Your task to perform on an android device: change alarm snooze length Image 0: 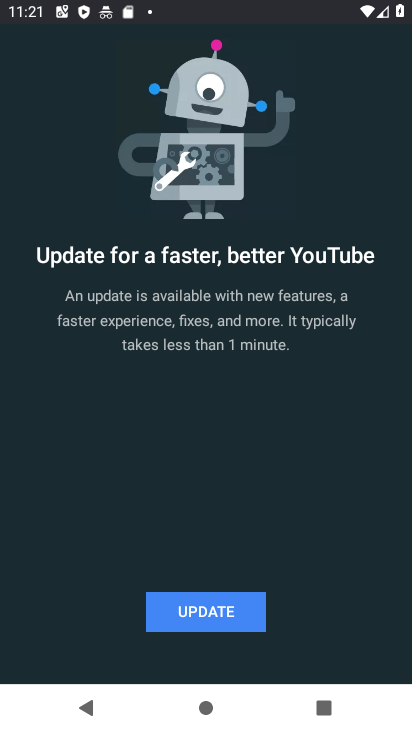
Step 0: press home button
Your task to perform on an android device: change alarm snooze length Image 1: 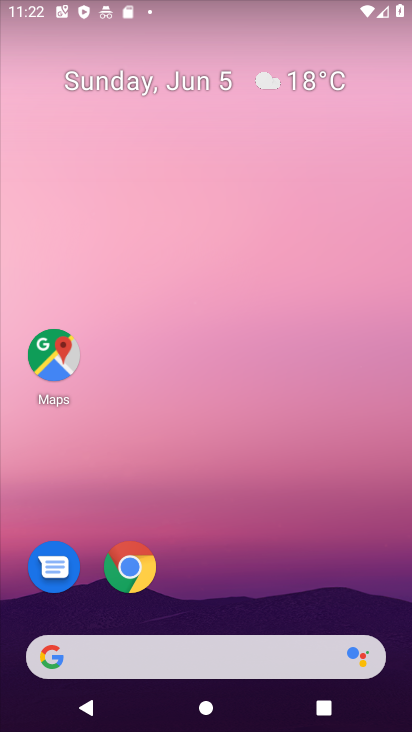
Step 1: drag from (210, 525) to (181, 16)
Your task to perform on an android device: change alarm snooze length Image 2: 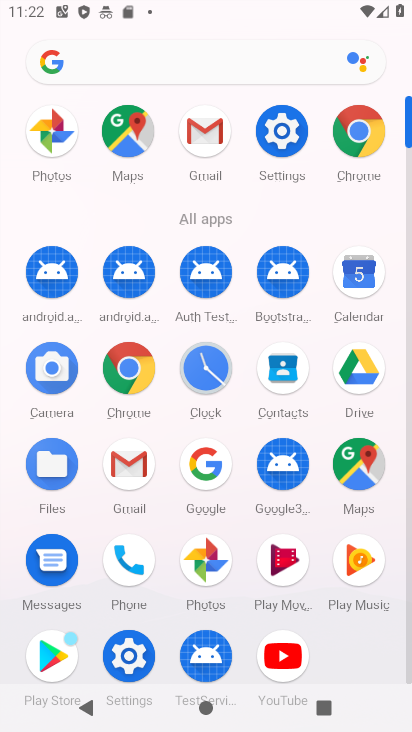
Step 2: click (210, 353)
Your task to perform on an android device: change alarm snooze length Image 3: 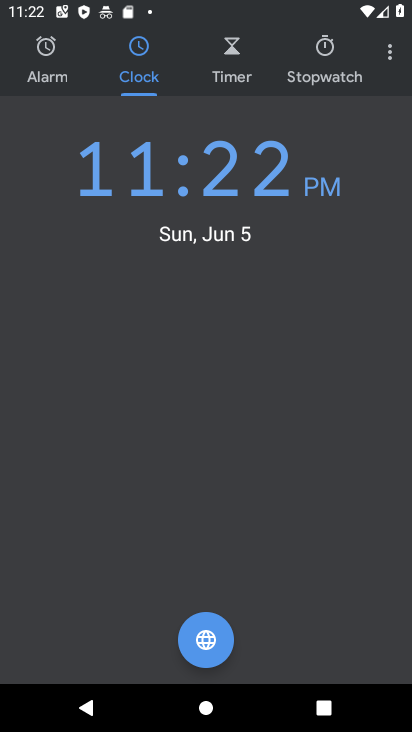
Step 3: click (386, 62)
Your task to perform on an android device: change alarm snooze length Image 4: 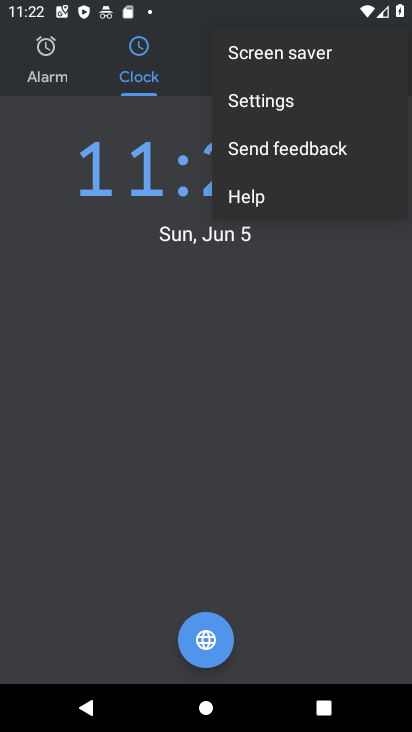
Step 4: click (342, 102)
Your task to perform on an android device: change alarm snooze length Image 5: 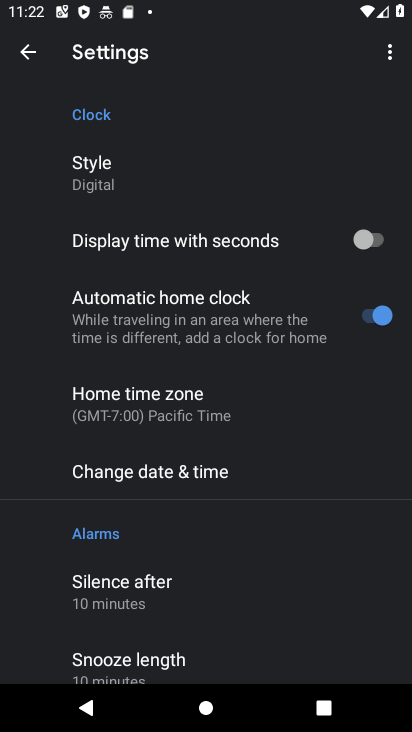
Step 5: drag from (246, 569) to (253, 392)
Your task to perform on an android device: change alarm snooze length Image 6: 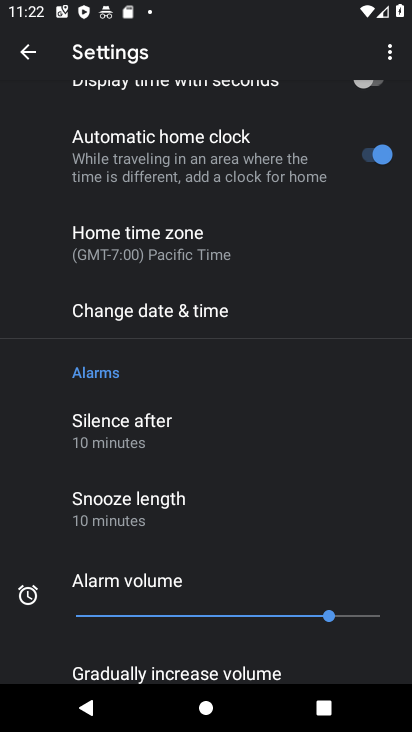
Step 6: click (212, 499)
Your task to perform on an android device: change alarm snooze length Image 7: 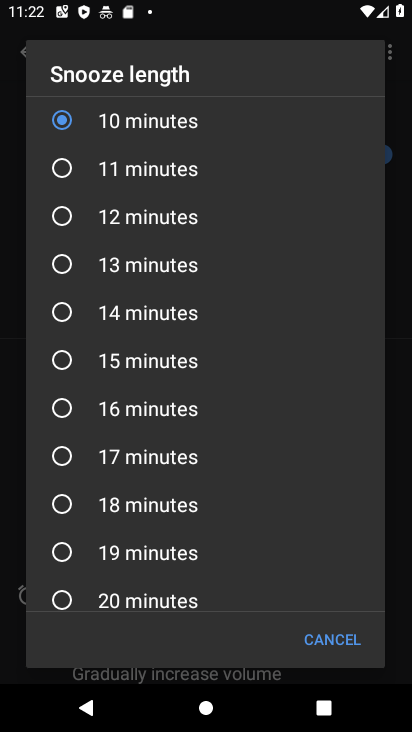
Step 7: click (127, 214)
Your task to perform on an android device: change alarm snooze length Image 8: 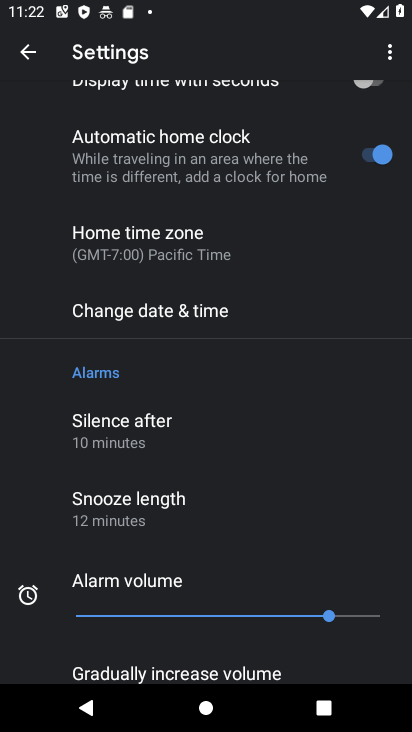
Step 8: task complete